Your task to perform on an android device: Go to display settings Image 0: 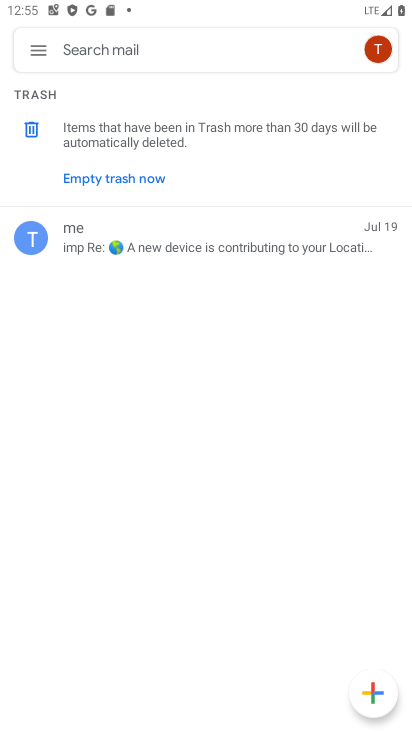
Step 0: press home button
Your task to perform on an android device: Go to display settings Image 1: 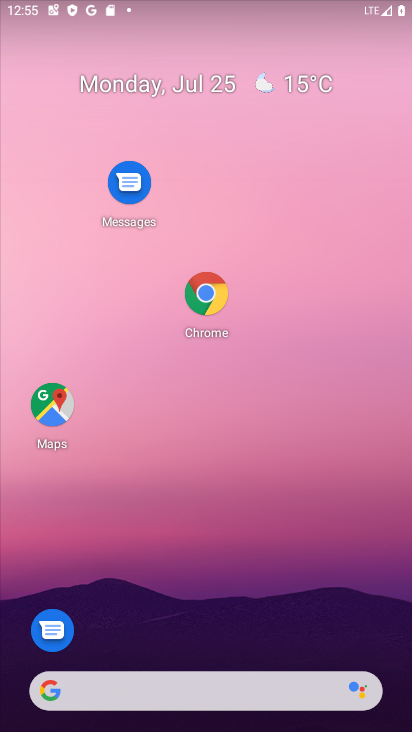
Step 1: drag from (236, 644) to (211, 30)
Your task to perform on an android device: Go to display settings Image 2: 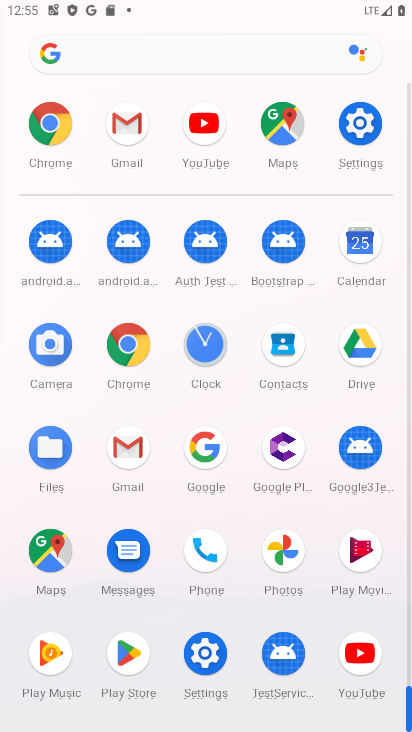
Step 2: click (211, 656)
Your task to perform on an android device: Go to display settings Image 3: 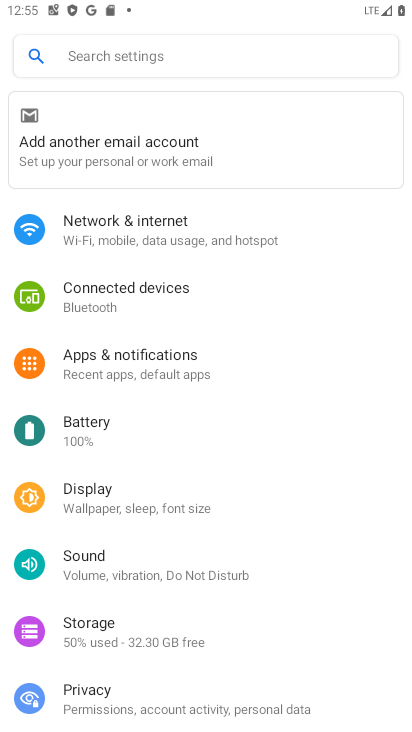
Step 3: click (89, 489)
Your task to perform on an android device: Go to display settings Image 4: 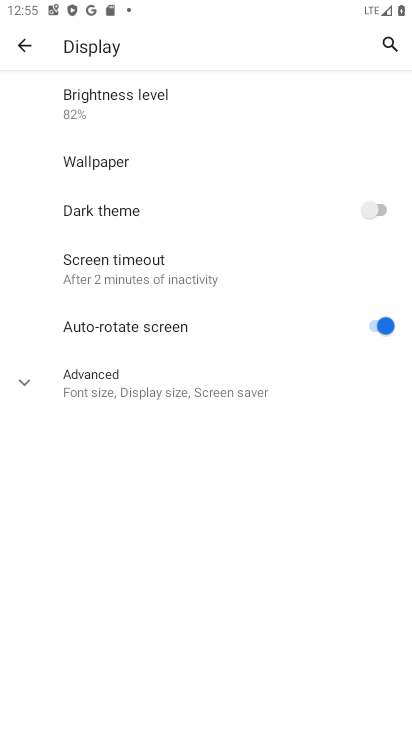
Step 4: task complete